Your task to perform on an android device: delete the emails in spam in the gmail app Image 0: 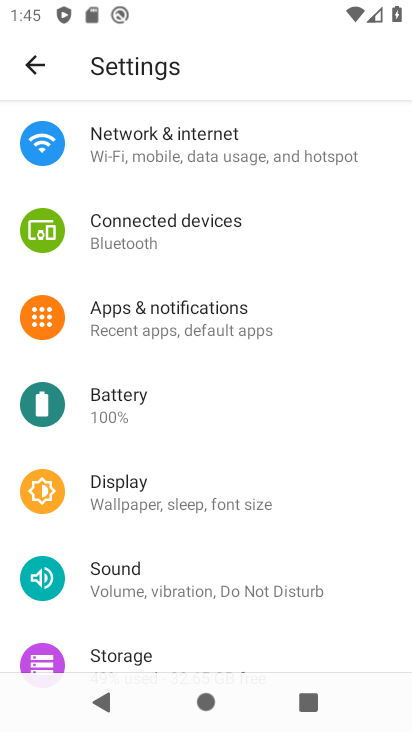
Step 0: press home button
Your task to perform on an android device: delete the emails in spam in the gmail app Image 1: 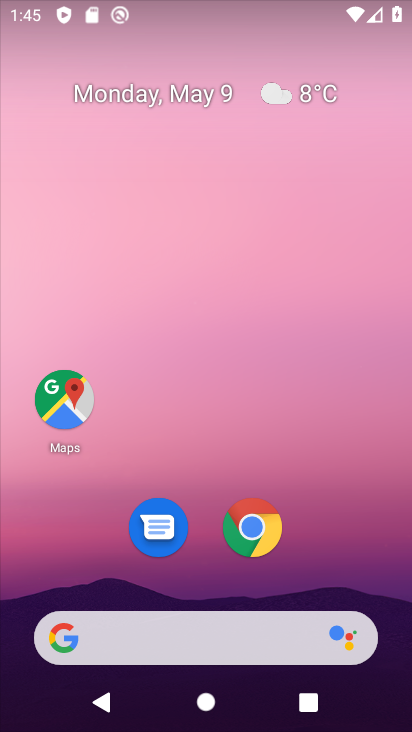
Step 1: drag from (330, 566) to (358, 185)
Your task to perform on an android device: delete the emails in spam in the gmail app Image 2: 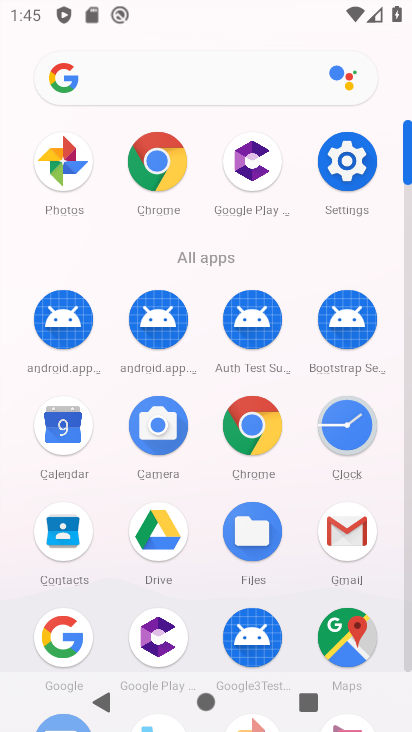
Step 2: click (341, 548)
Your task to perform on an android device: delete the emails in spam in the gmail app Image 3: 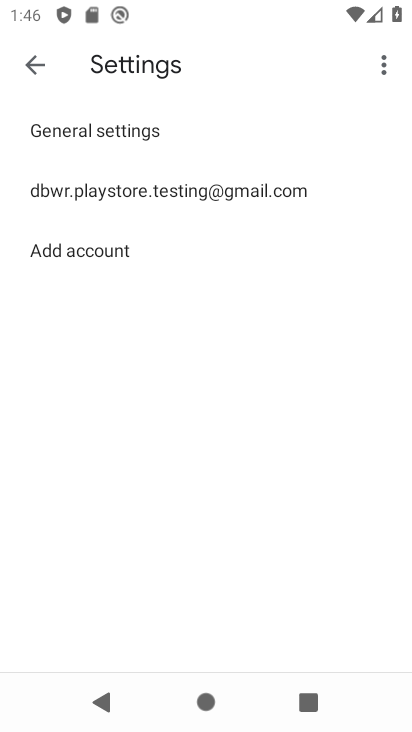
Step 3: click (202, 203)
Your task to perform on an android device: delete the emails in spam in the gmail app Image 4: 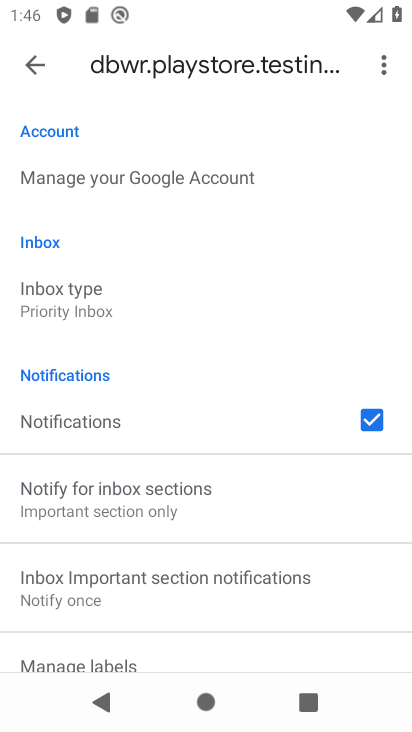
Step 4: press back button
Your task to perform on an android device: delete the emails in spam in the gmail app Image 5: 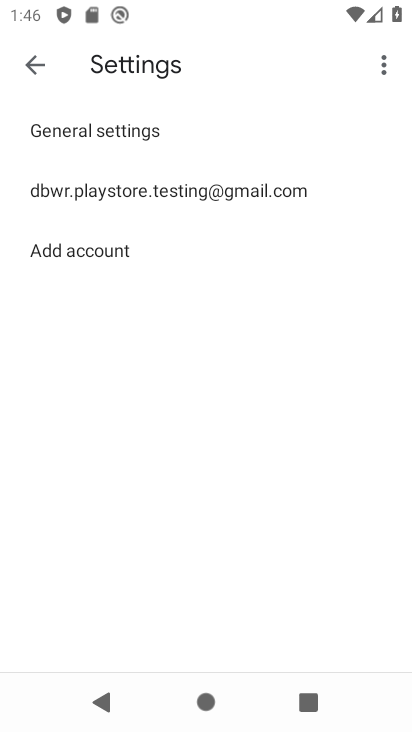
Step 5: press back button
Your task to perform on an android device: delete the emails in spam in the gmail app Image 6: 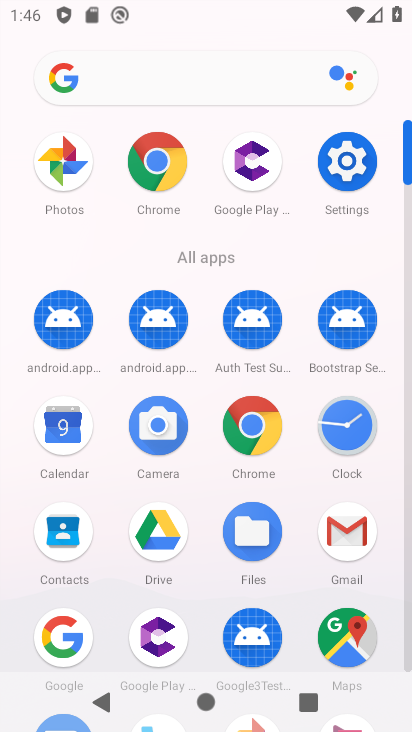
Step 6: click (326, 541)
Your task to perform on an android device: delete the emails in spam in the gmail app Image 7: 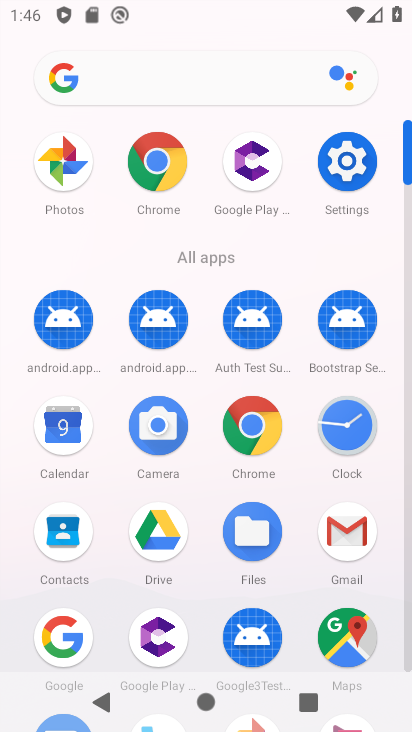
Step 7: click (340, 549)
Your task to perform on an android device: delete the emails in spam in the gmail app Image 8: 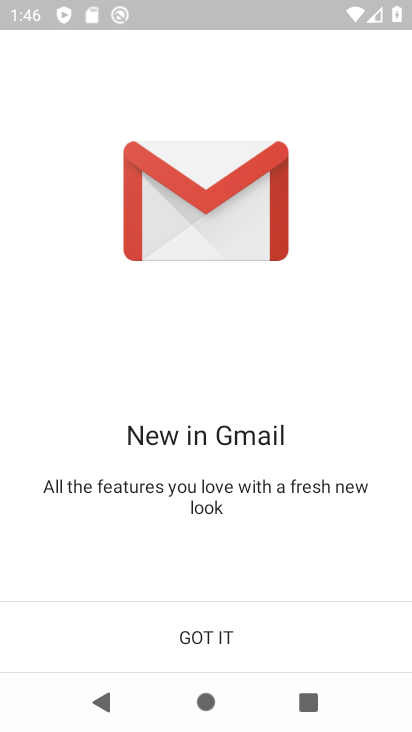
Step 8: click (224, 632)
Your task to perform on an android device: delete the emails in spam in the gmail app Image 9: 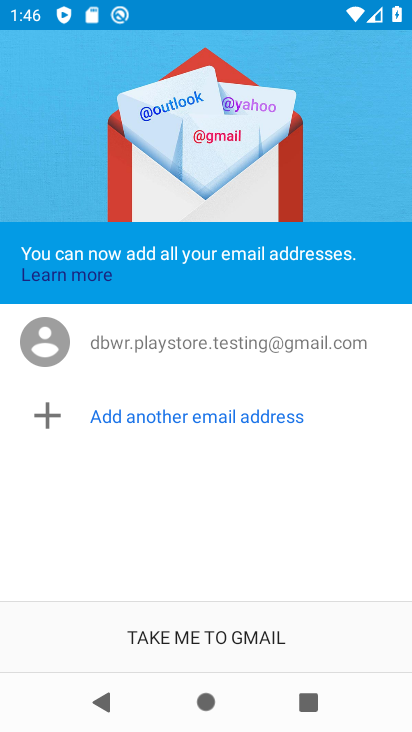
Step 9: click (221, 639)
Your task to perform on an android device: delete the emails in spam in the gmail app Image 10: 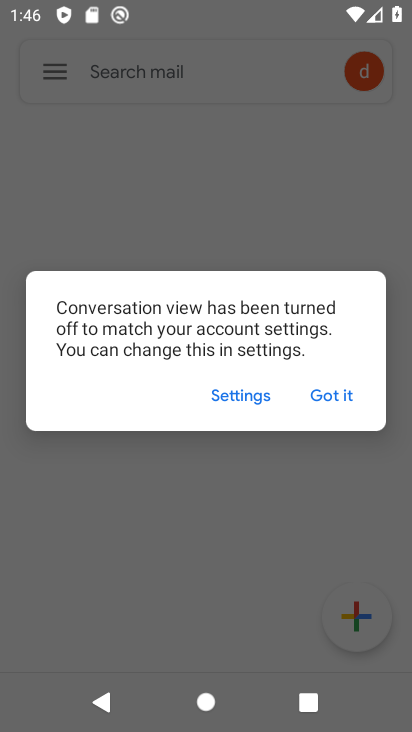
Step 10: click (338, 409)
Your task to perform on an android device: delete the emails in spam in the gmail app Image 11: 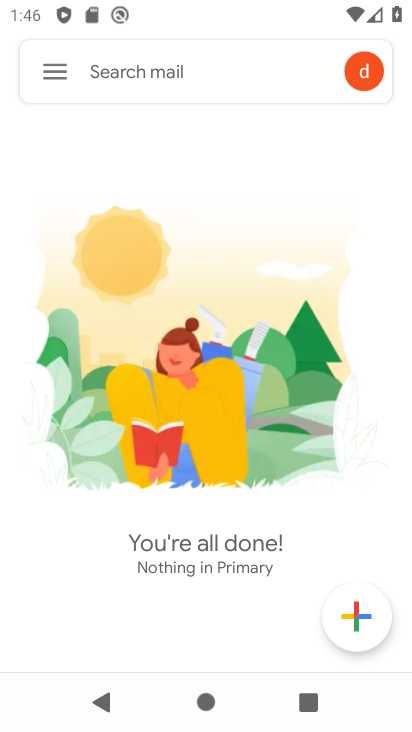
Step 11: click (66, 77)
Your task to perform on an android device: delete the emails in spam in the gmail app Image 12: 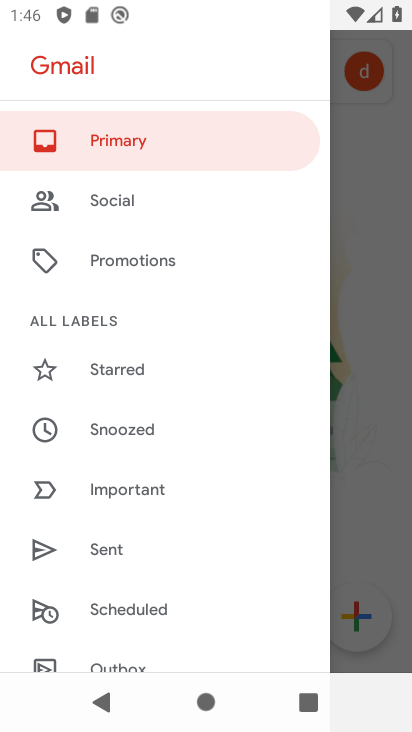
Step 12: drag from (189, 604) to (216, 238)
Your task to perform on an android device: delete the emails in spam in the gmail app Image 13: 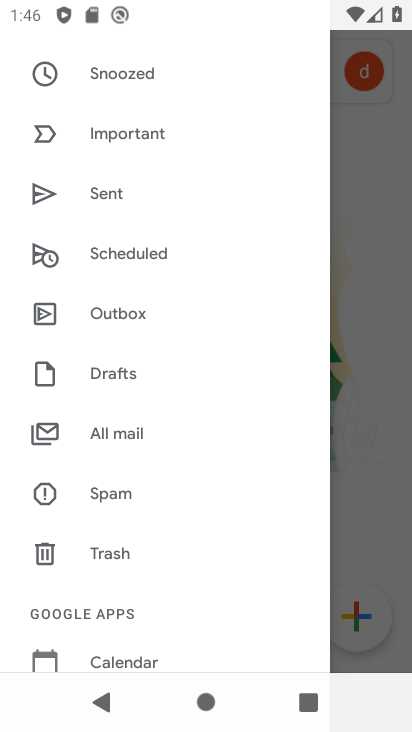
Step 13: click (150, 495)
Your task to perform on an android device: delete the emails in spam in the gmail app Image 14: 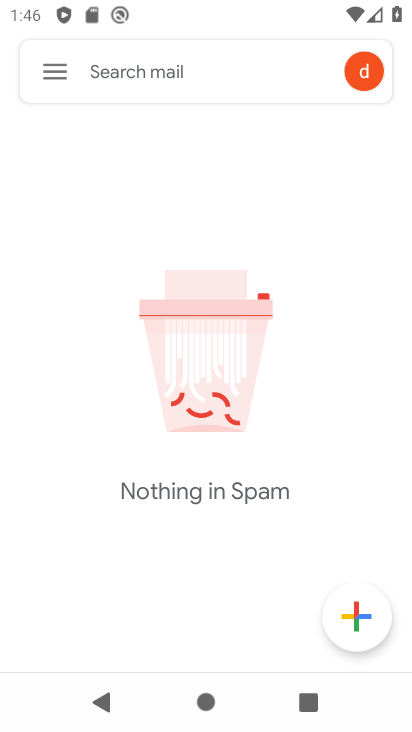
Step 14: task complete